Your task to perform on an android device: Find coffee shops on Maps Image 0: 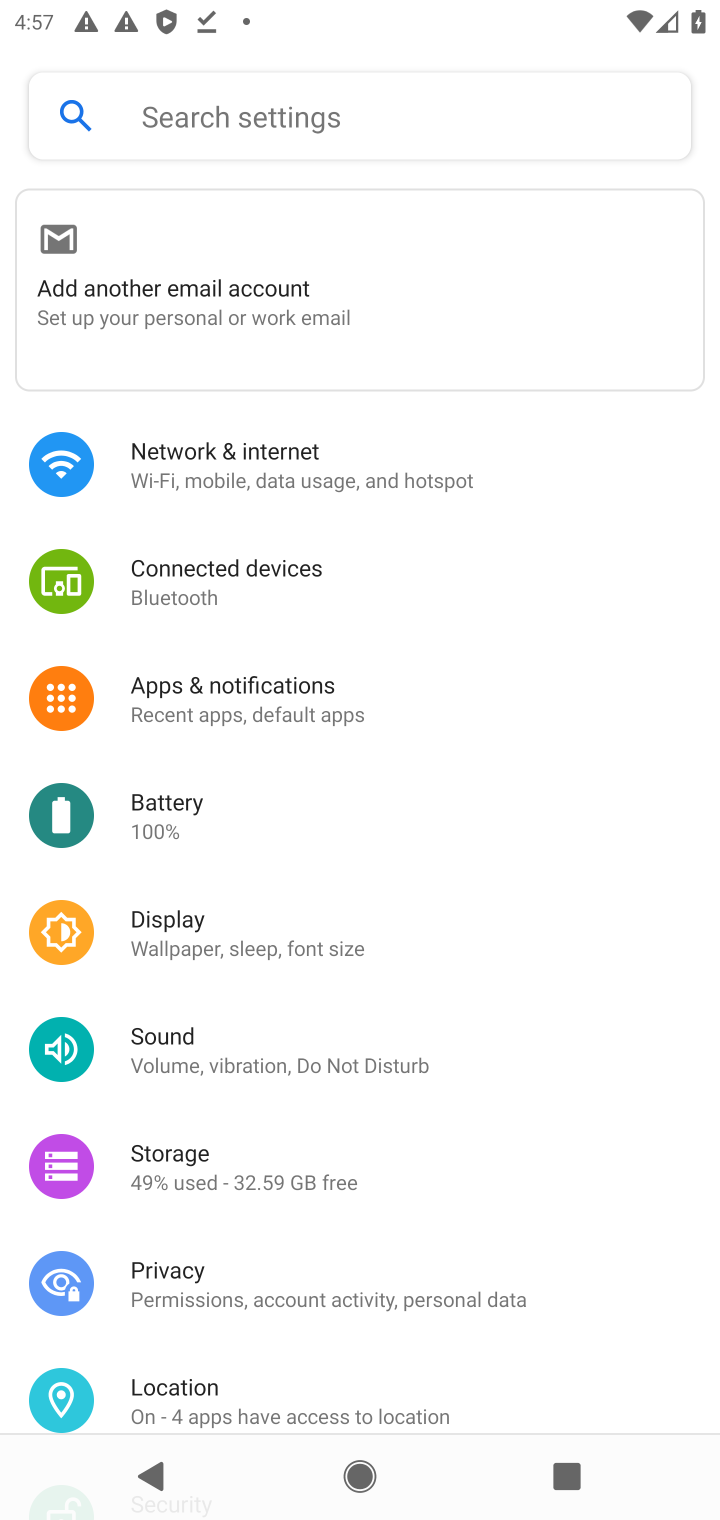
Step 0: press home button
Your task to perform on an android device: Find coffee shops on Maps Image 1: 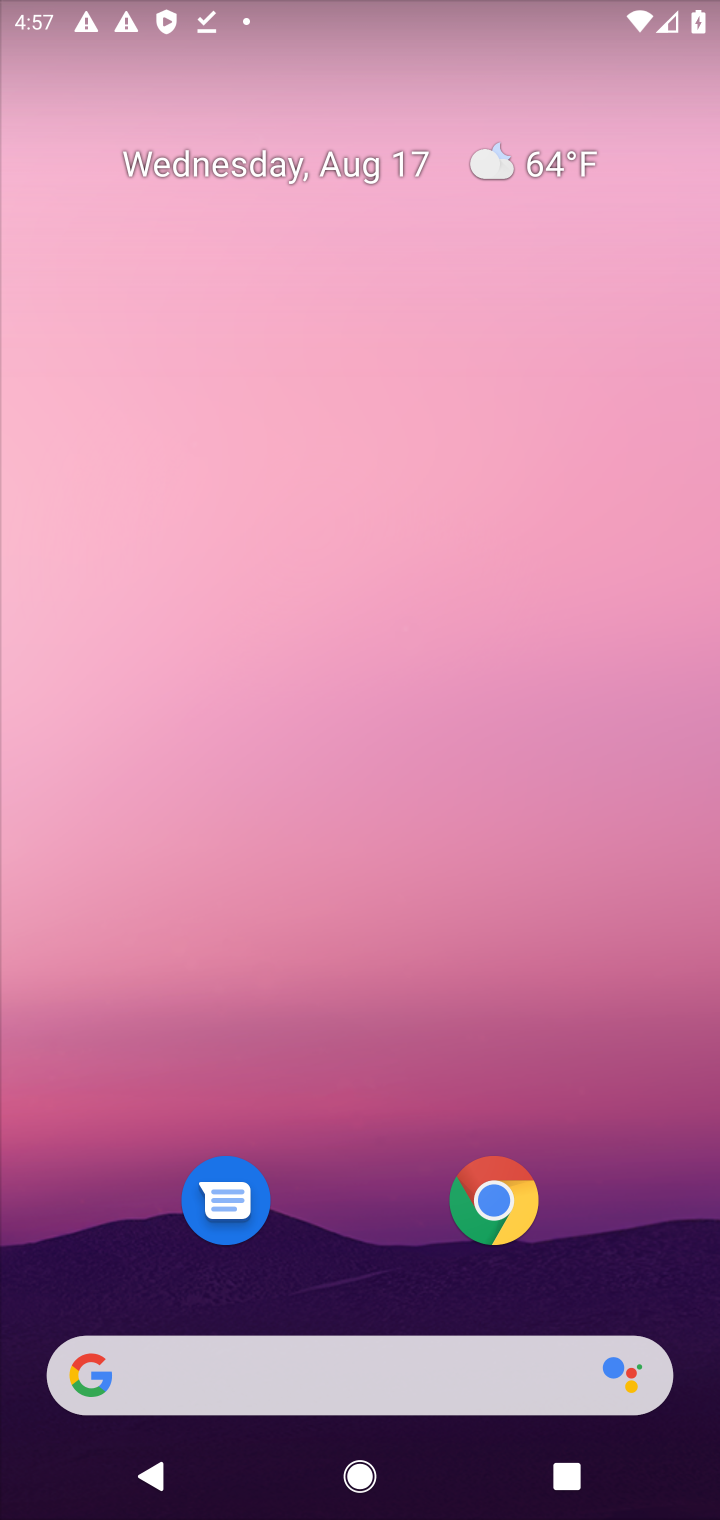
Step 1: drag from (345, 875) to (342, 71)
Your task to perform on an android device: Find coffee shops on Maps Image 2: 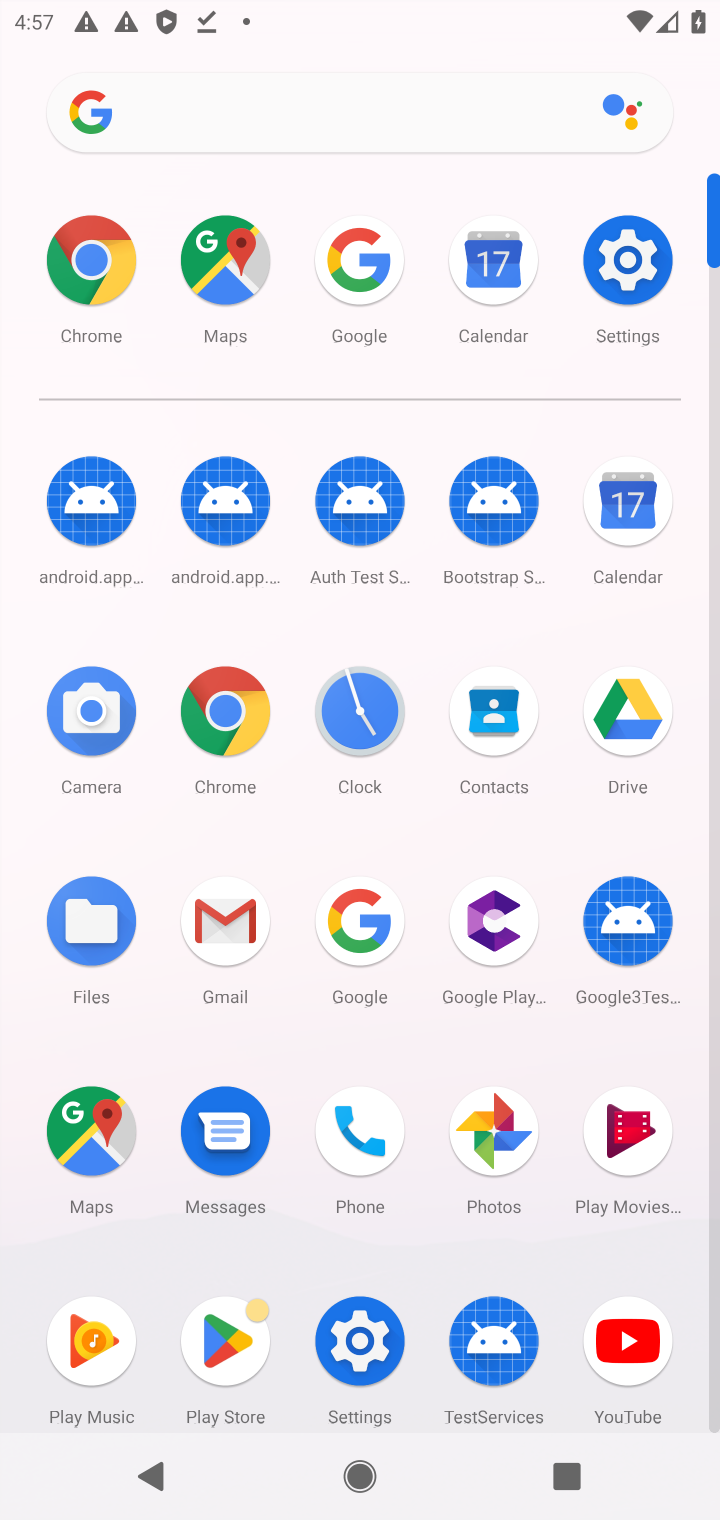
Step 2: click (72, 1124)
Your task to perform on an android device: Find coffee shops on Maps Image 3: 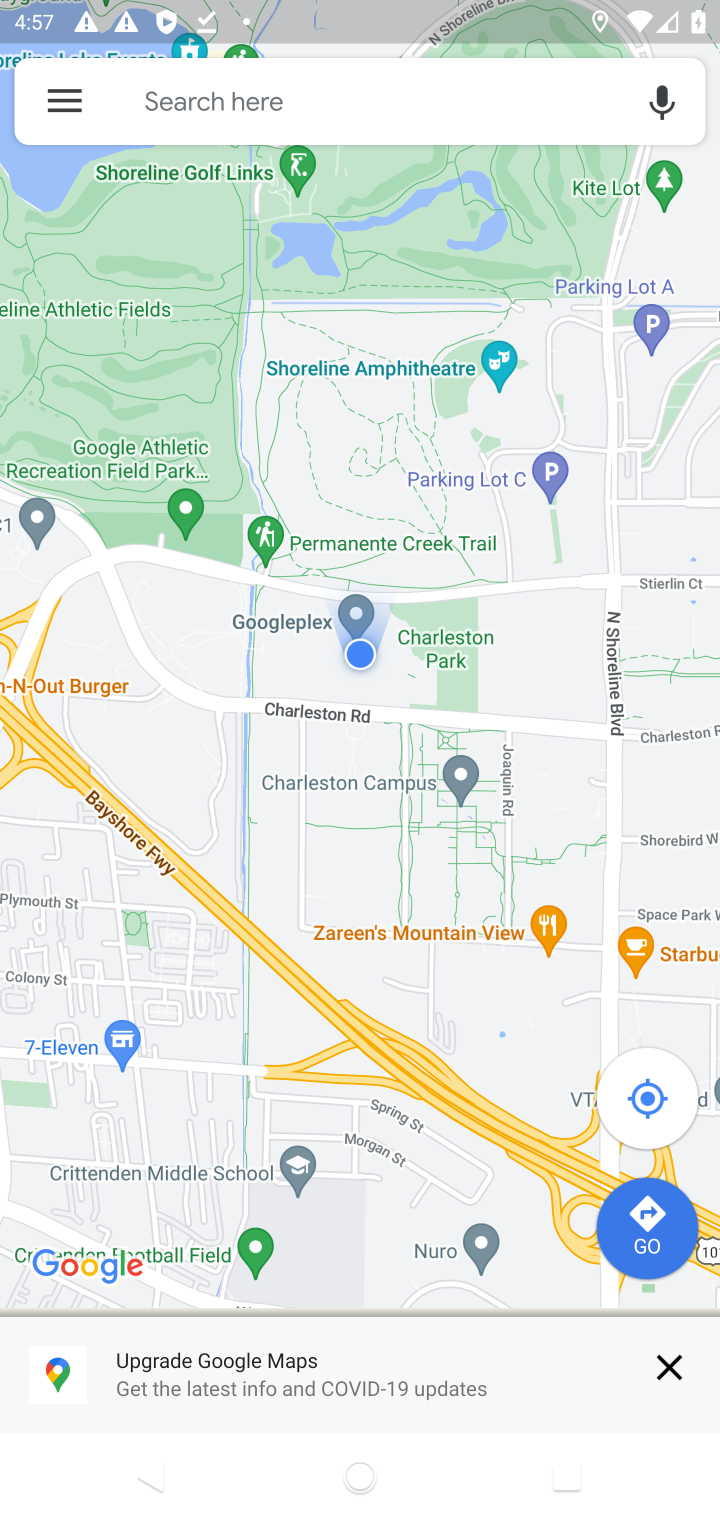
Step 3: click (407, 107)
Your task to perform on an android device: Find coffee shops on Maps Image 4: 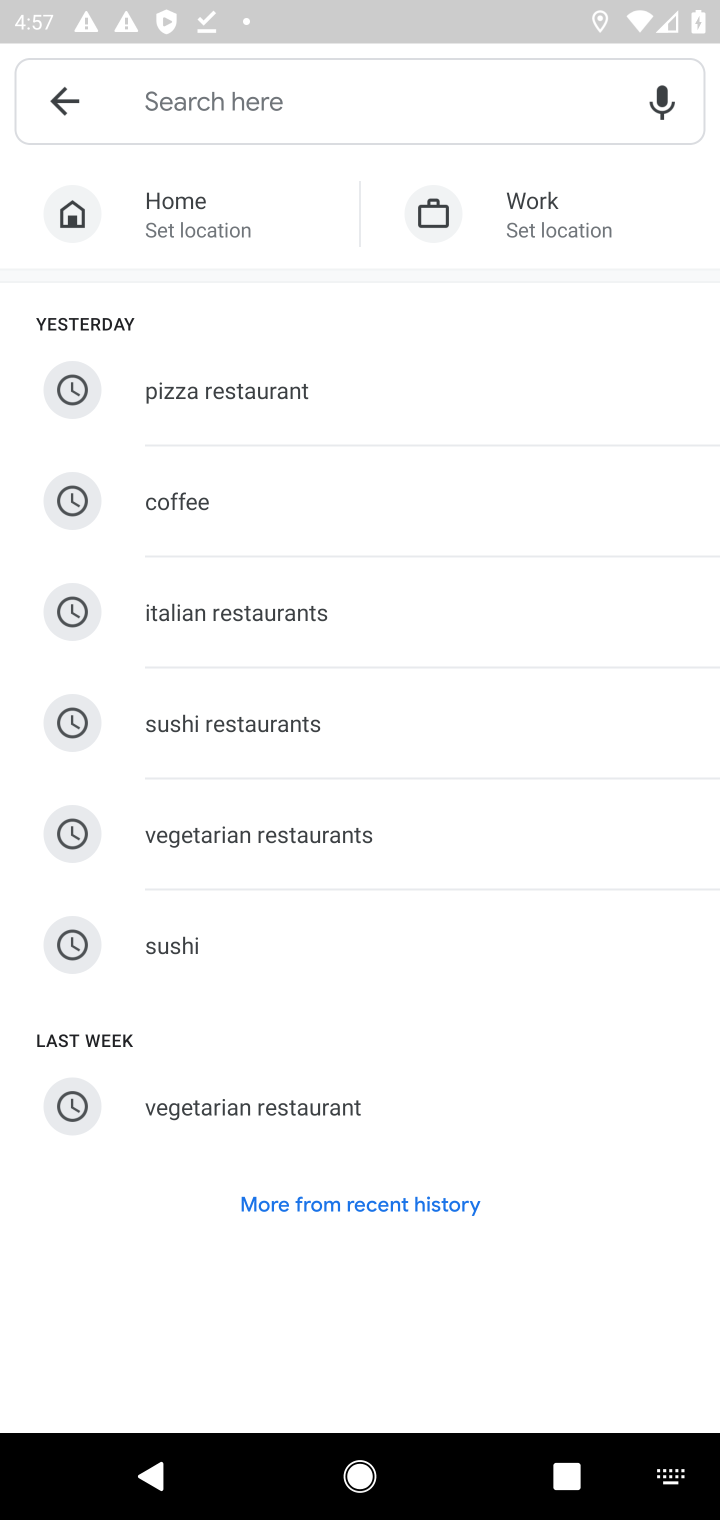
Step 4: type "coffee shops"
Your task to perform on an android device: Find coffee shops on Maps Image 5: 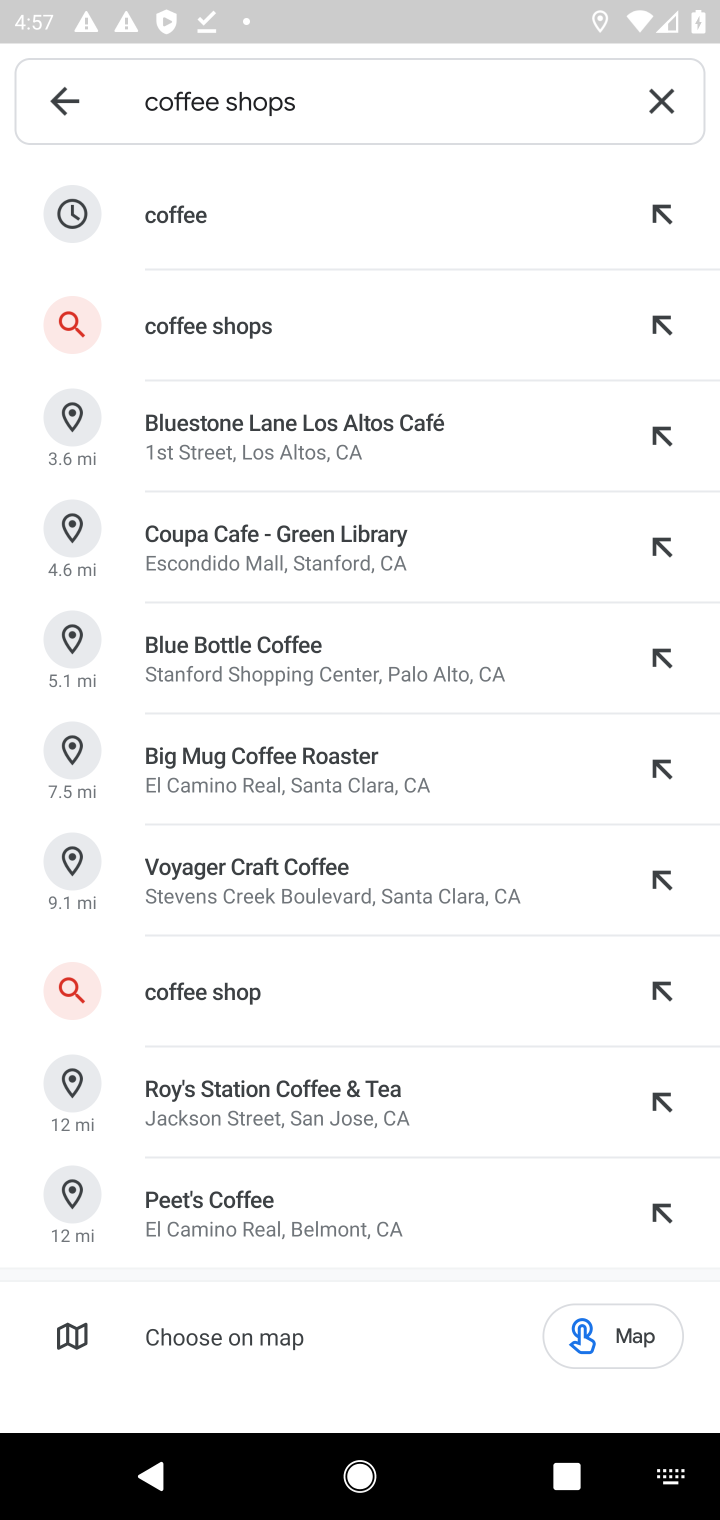
Step 5: click (212, 322)
Your task to perform on an android device: Find coffee shops on Maps Image 6: 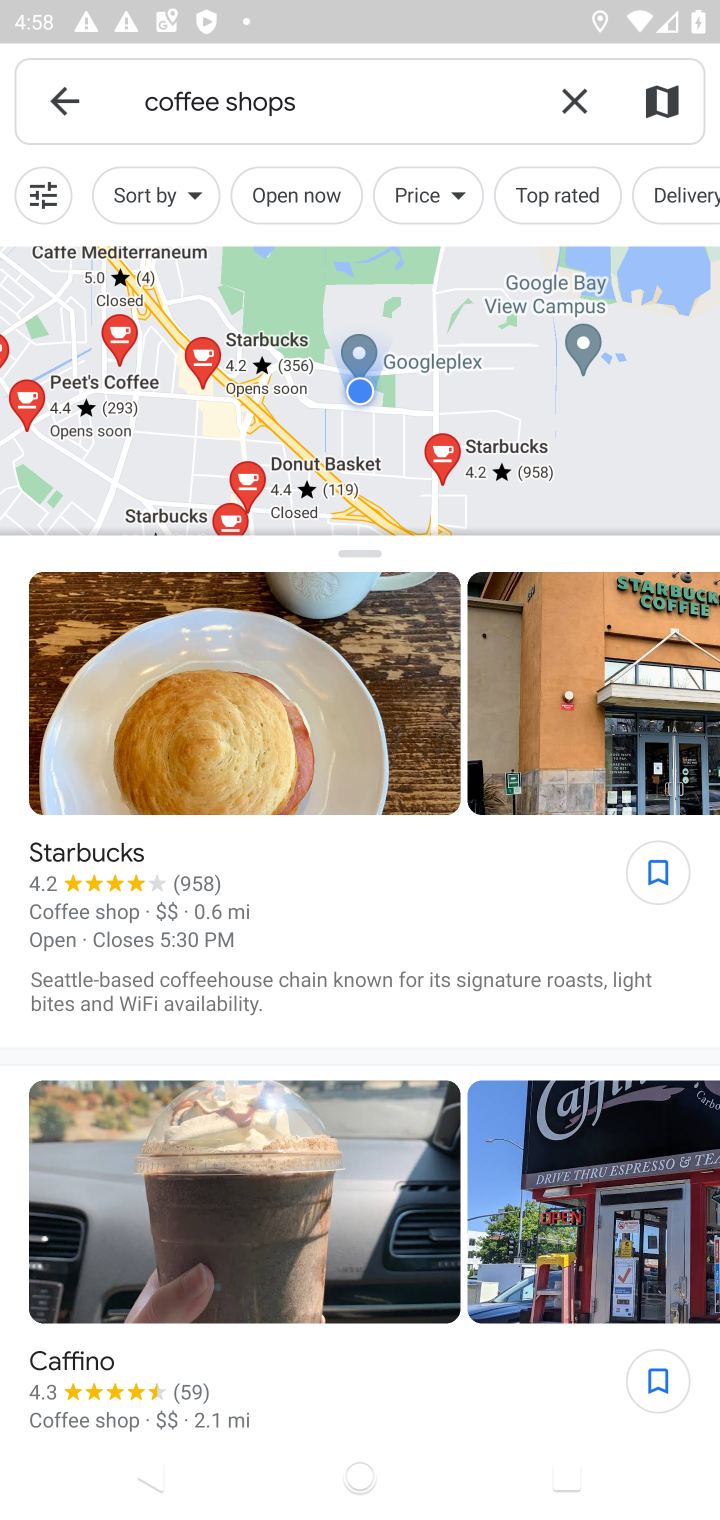
Step 6: task complete